Your task to perform on an android device: Go to ESPN.com Image 0: 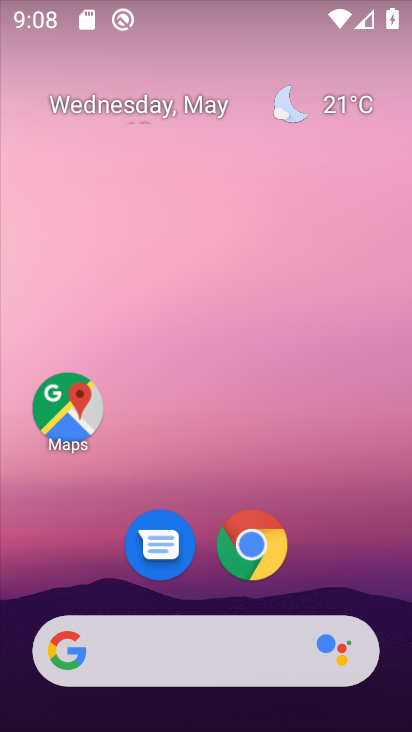
Step 0: click (234, 540)
Your task to perform on an android device: Go to ESPN.com Image 1: 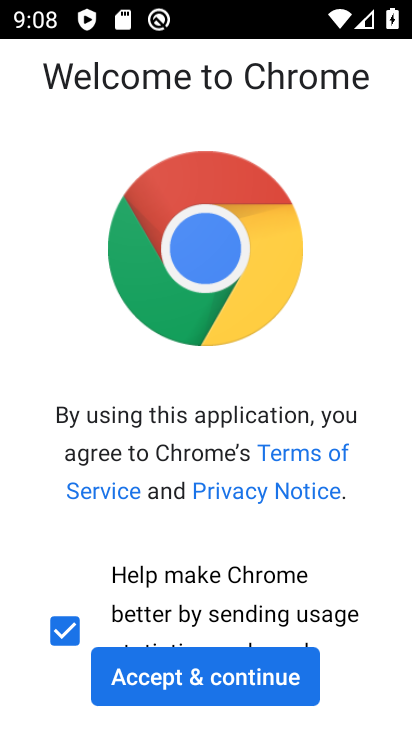
Step 1: click (224, 670)
Your task to perform on an android device: Go to ESPN.com Image 2: 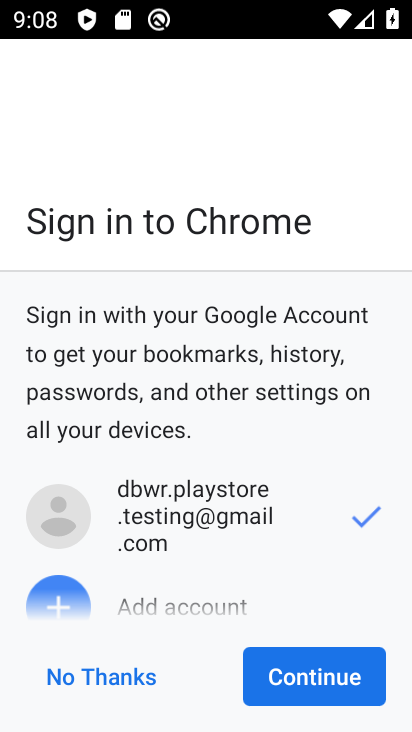
Step 2: click (277, 682)
Your task to perform on an android device: Go to ESPN.com Image 3: 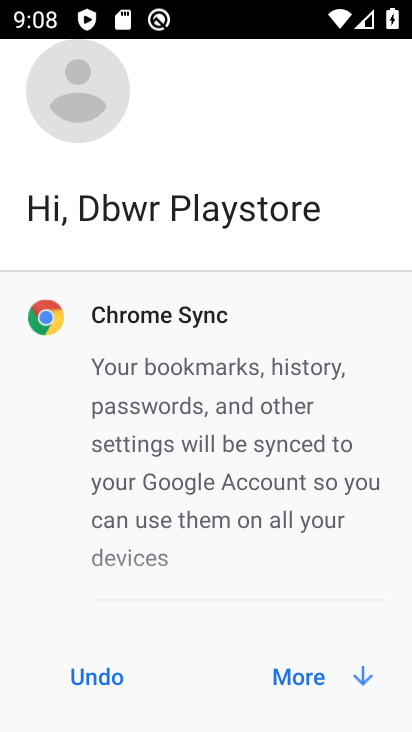
Step 3: click (301, 675)
Your task to perform on an android device: Go to ESPN.com Image 4: 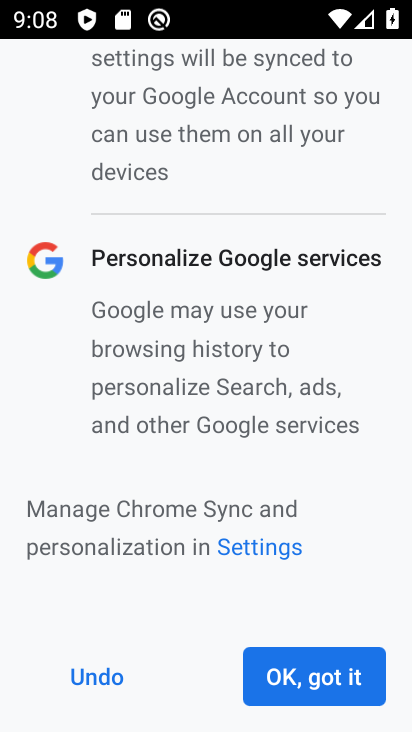
Step 4: click (301, 671)
Your task to perform on an android device: Go to ESPN.com Image 5: 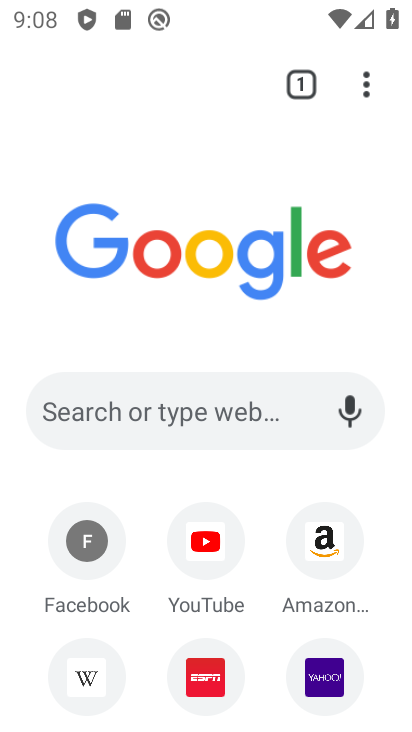
Step 5: click (195, 672)
Your task to perform on an android device: Go to ESPN.com Image 6: 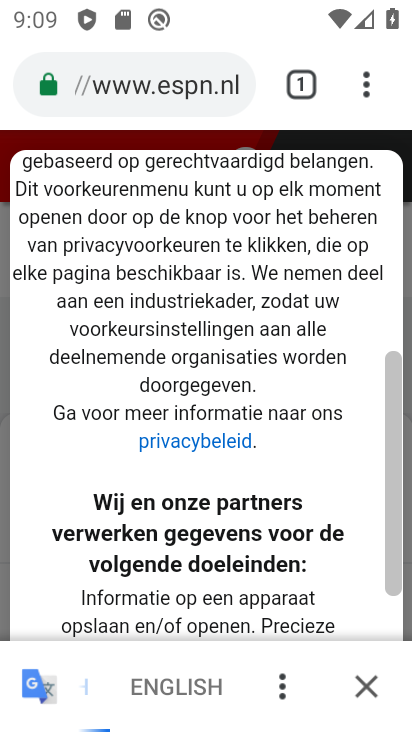
Step 6: task complete